Your task to perform on an android device: toggle translation in the chrome app Image 0: 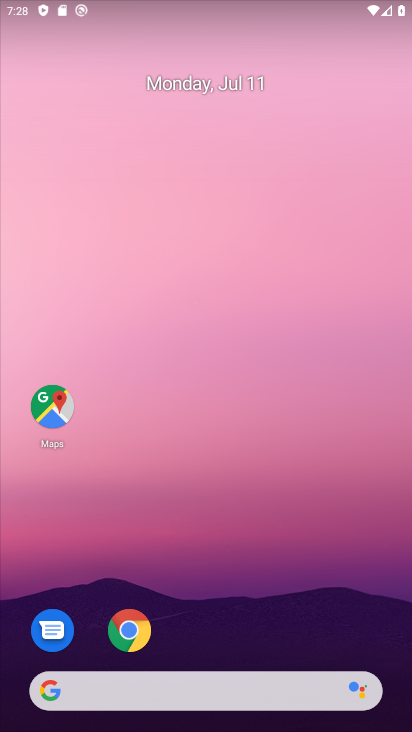
Step 0: click (128, 624)
Your task to perform on an android device: toggle translation in the chrome app Image 1: 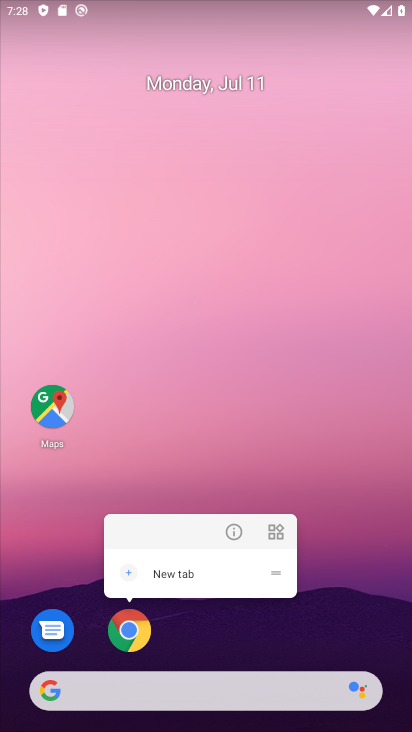
Step 1: click (128, 623)
Your task to perform on an android device: toggle translation in the chrome app Image 2: 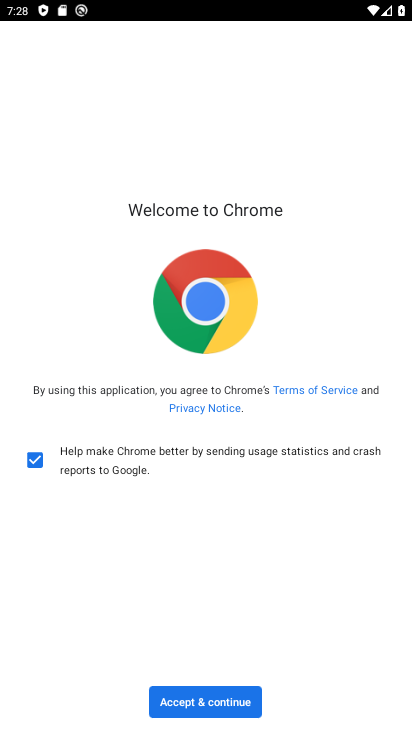
Step 2: click (204, 701)
Your task to perform on an android device: toggle translation in the chrome app Image 3: 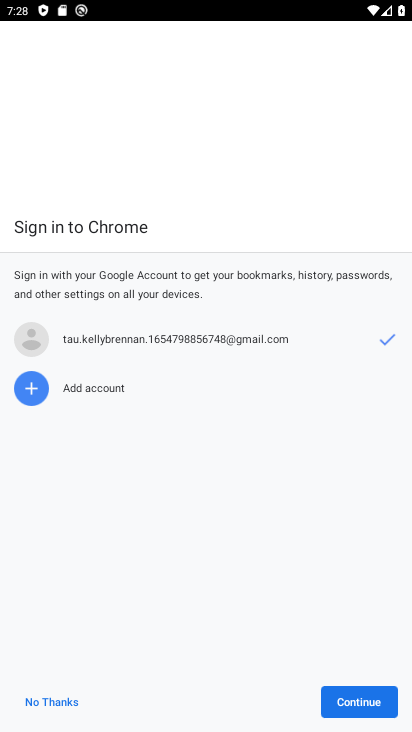
Step 3: click (350, 713)
Your task to perform on an android device: toggle translation in the chrome app Image 4: 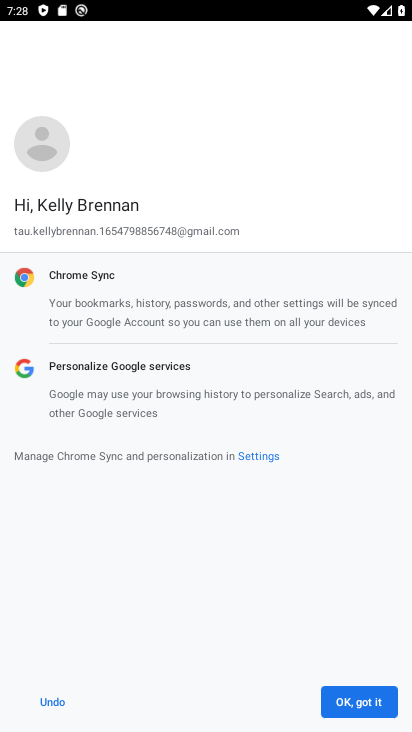
Step 4: click (376, 694)
Your task to perform on an android device: toggle translation in the chrome app Image 5: 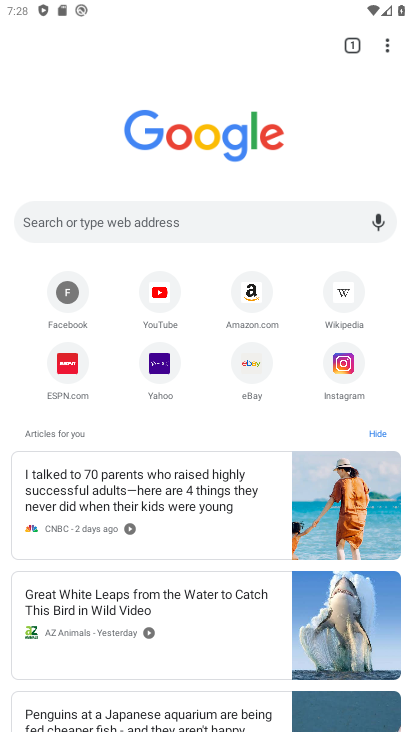
Step 5: drag from (387, 45) to (217, 379)
Your task to perform on an android device: toggle translation in the chrome app Image 6: 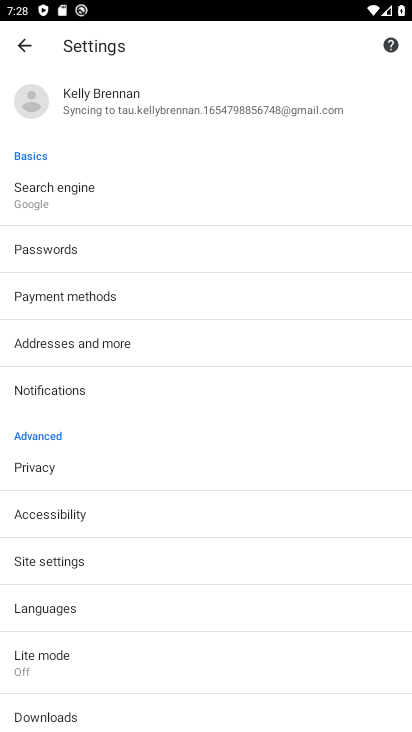
Step 6: click (60, 609)
Your task to perform on an android device: toggle translation in the chrome app Image 7: 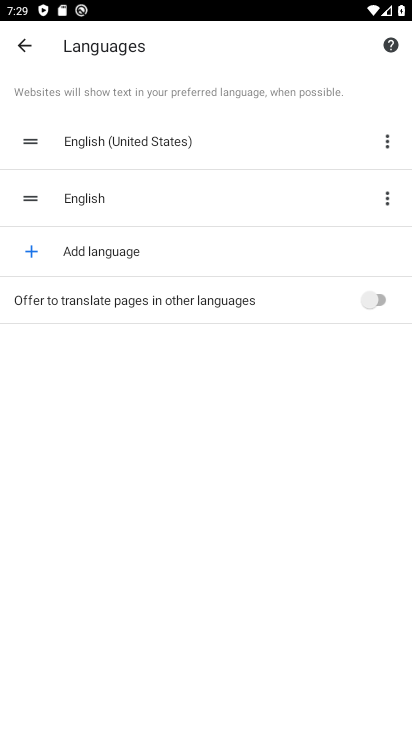
Step 7: click (399, 289)
Your task to perform on an android device: toggle translation in the chrome app Image 8: 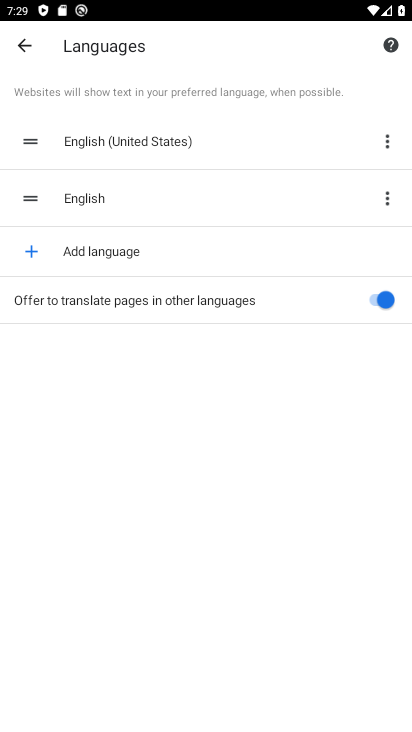
Step 8: task complete